Your task to perform on an android device: Open the web browser Image 0: 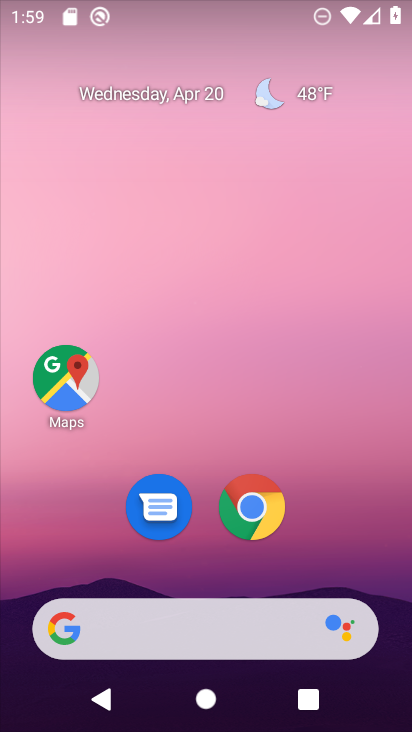
Step 0: click (257, 507)
Your task to perform on an android device: Open the web browser Image 1: 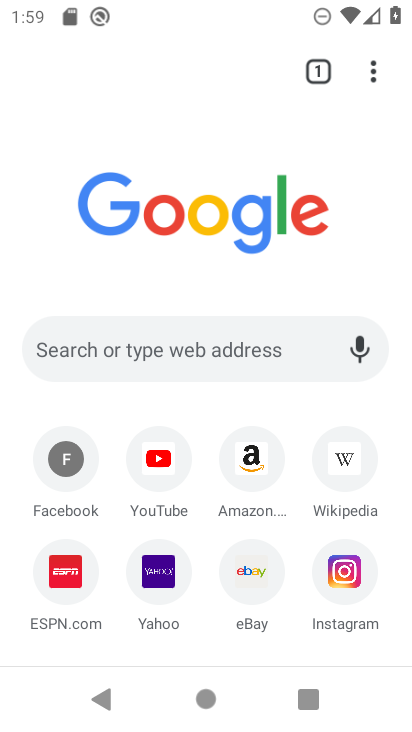
Step 1: task complete